Your task to perform on an android device: Open Yahoo.com Image 0: 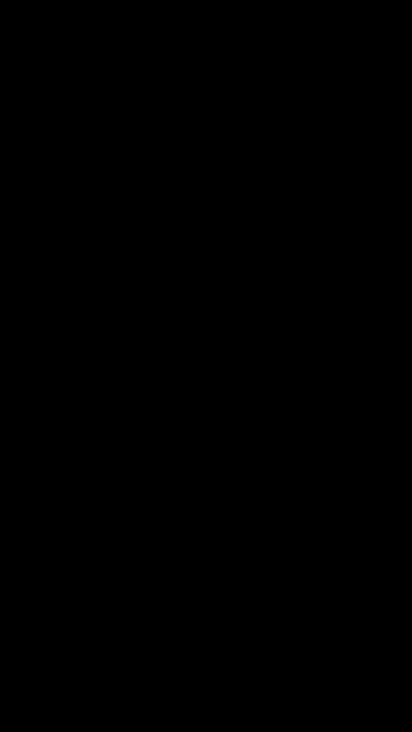
Step 0: press home button
Your task to perform on an android device: Open Yahoo.com Image 1: 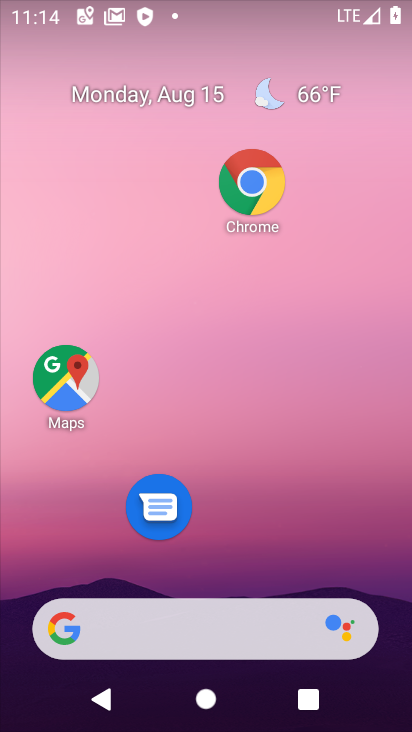
Step 1: drag from (280, 583) to (273, 57)
Your task to perform on an android device: Open Yahoo.com Image 2: 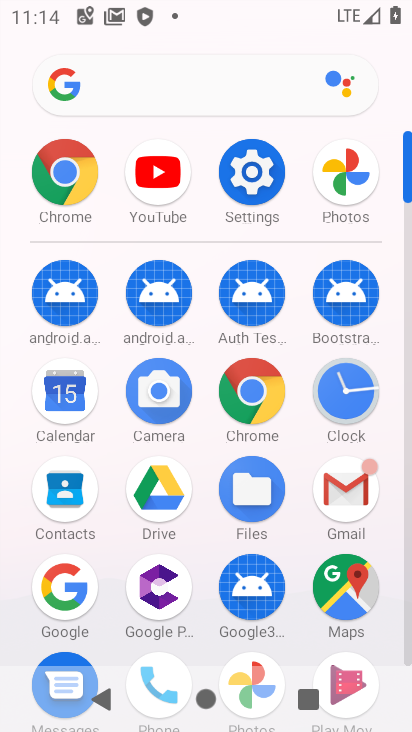
Step 2: click (59, 205)
Your task to perform on an android device: Open Yahoo.com Image 3: 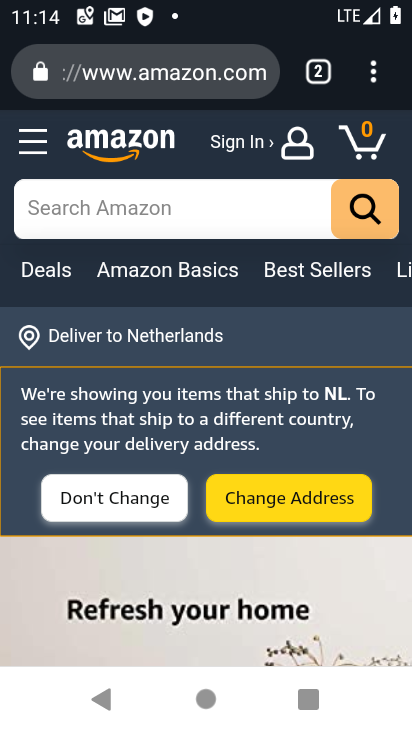
Step 3: click (200, 84)
Your task to perform on an android device: Open Yahoo.com Image 4: 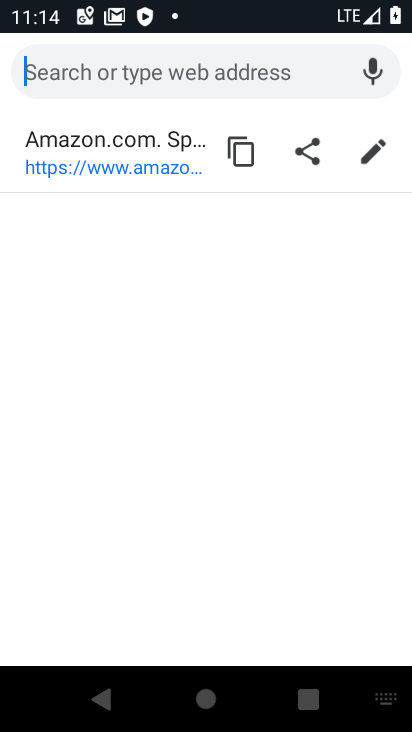
Step 4: type "yahoo.com"
Your task to perform on an android device: Open Yahoo.com Image 5: 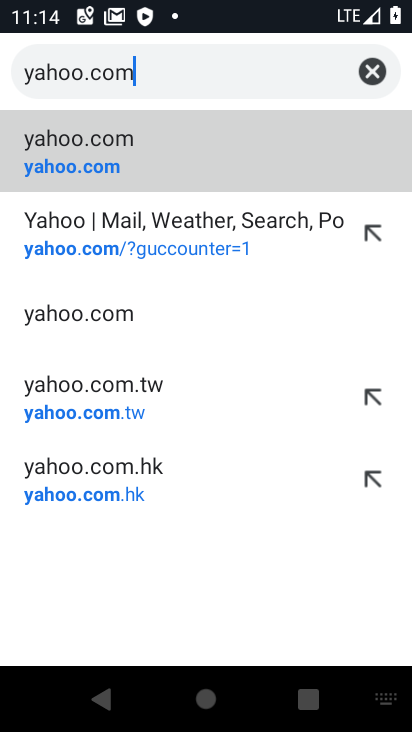
Step 5: click (88, 159)
Your task to perform on an android device: Open Yahoo.com Image 6: 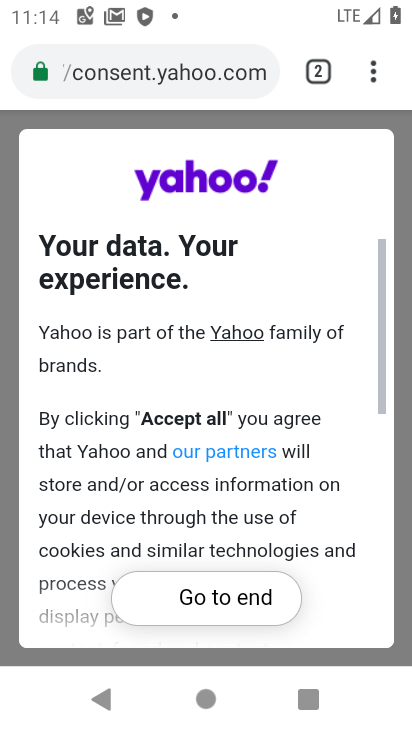
Step 6: task complete